Your task to perform on an android device: Go to network settings Image 0: 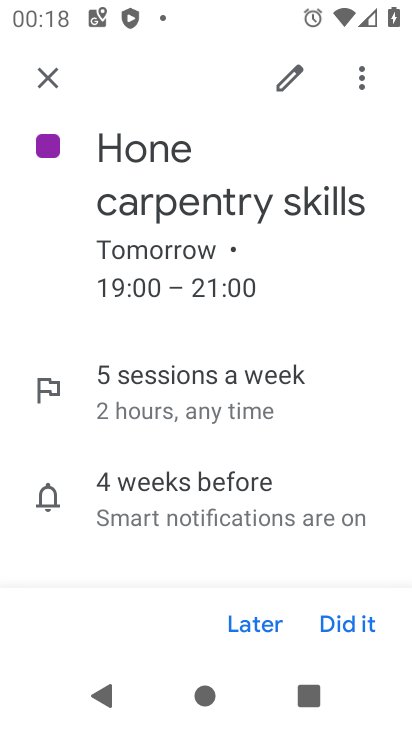
Step 0: press home button
Your task to perform on an android device: Go to network settings Image 1: 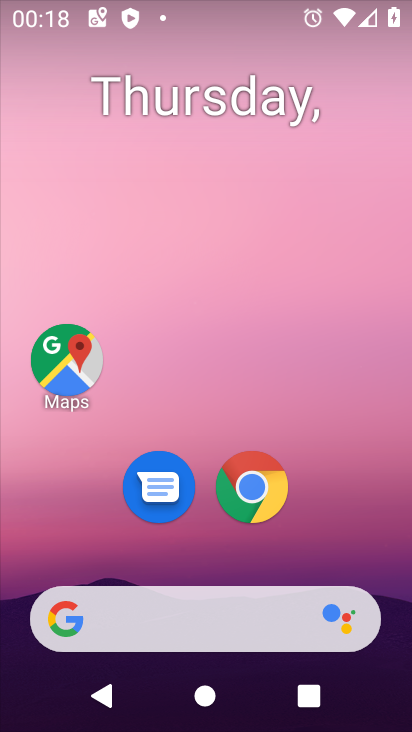
Step 1: drag from (356, 555) to (180, 7)
Your task to perform on an android device: Go to network settings Image 2: 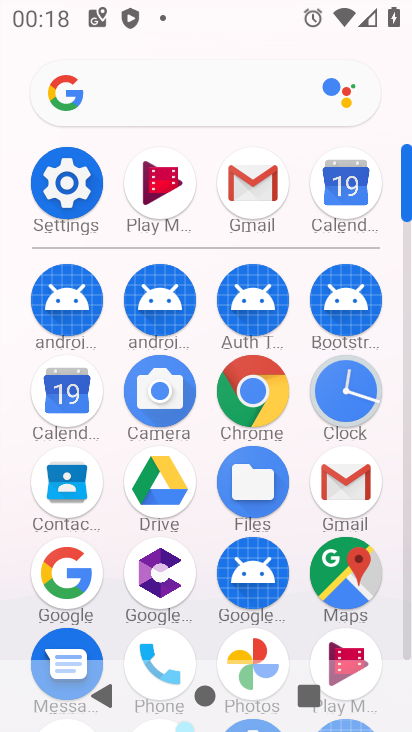
Step 2: click (63, 189)
Your task to perform on an android device: Go to network settings Image 3: 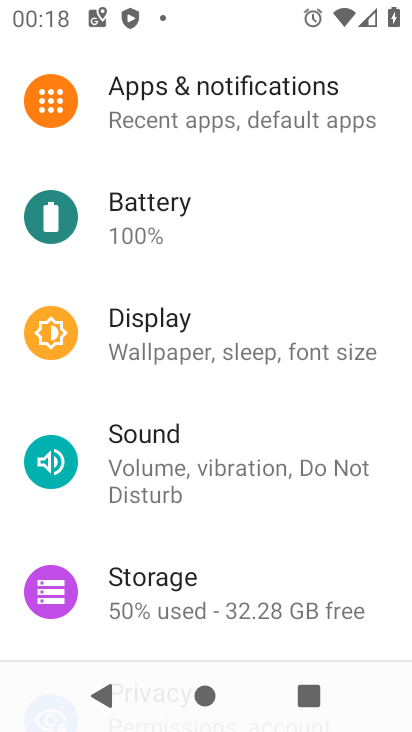
Step 3: drag from (269, 208) to (283, 496)
Your task to perform on an android device: Go to network settings Image 4: 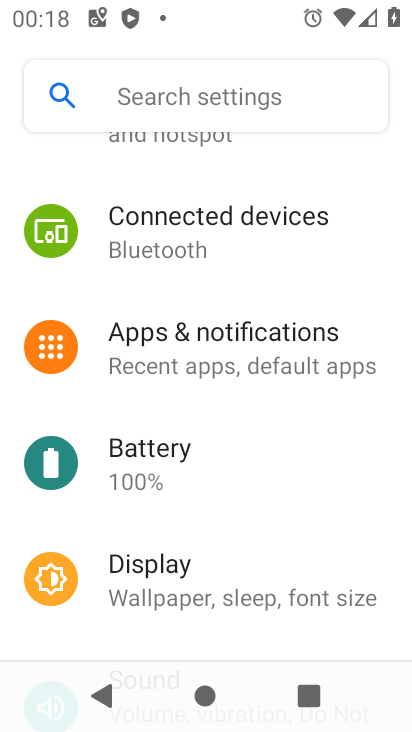
Step 4: drag from (241, 235) to (253, 494)
Your task to perform on an android device: Go to network settings Image 5: 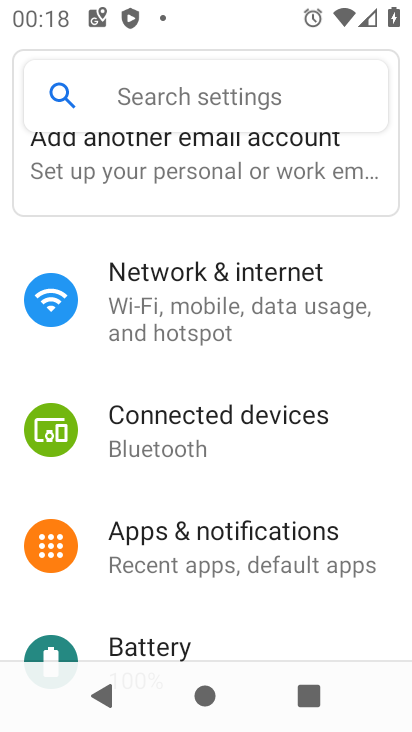
Step 5: click (179, 320)
Your task to perform on an android device: Go to network settings Image 6: 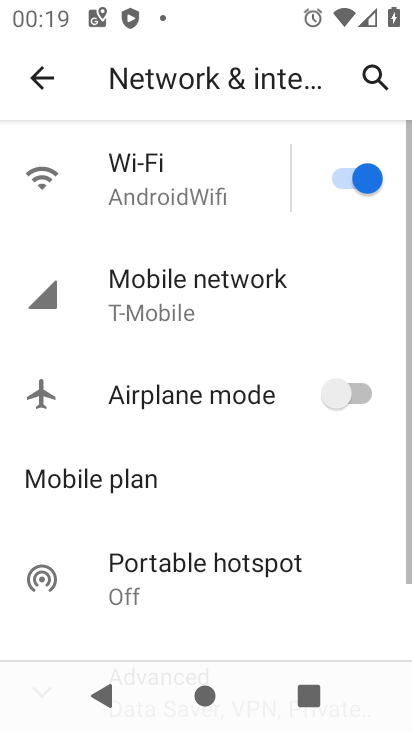
Step 6: click (149, 298)
Your task to perform on an android device: Go to network settings Image 7: 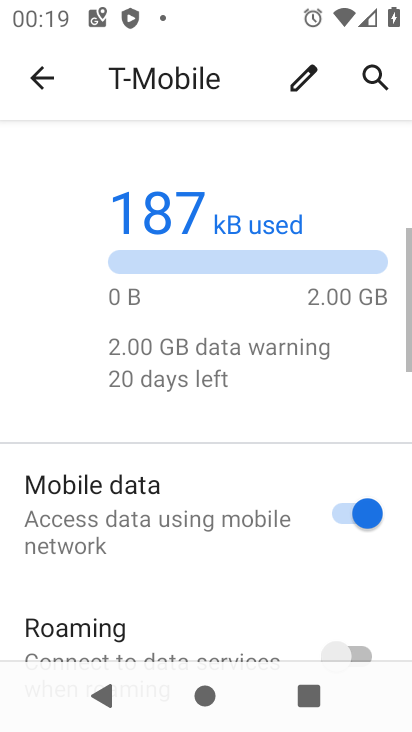
Step 7: drag from (202, 517) to (210, 57)
Your task to perform on an android device: Go to network settings Image 8: 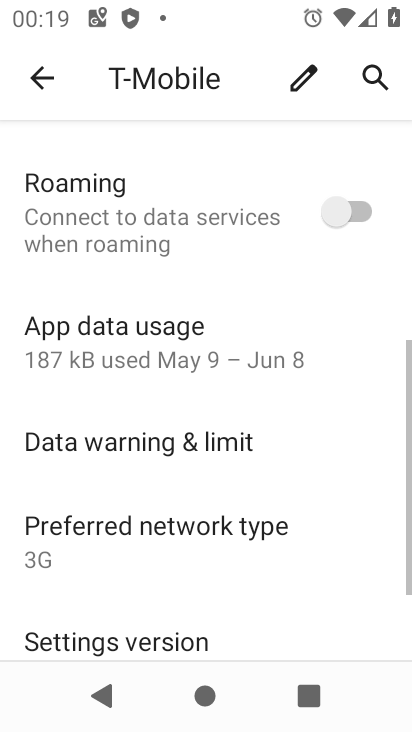
Step 8: drag from (175, 511) to (168, 45)
Your task to perform on an android device: Go to network settings Image 9: 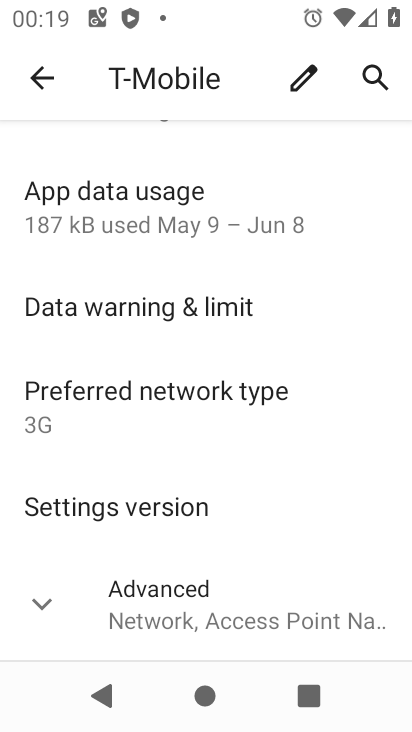
Step 9: click (38, 619)
Your task to perform on an android device: Go to network settings Image 10: 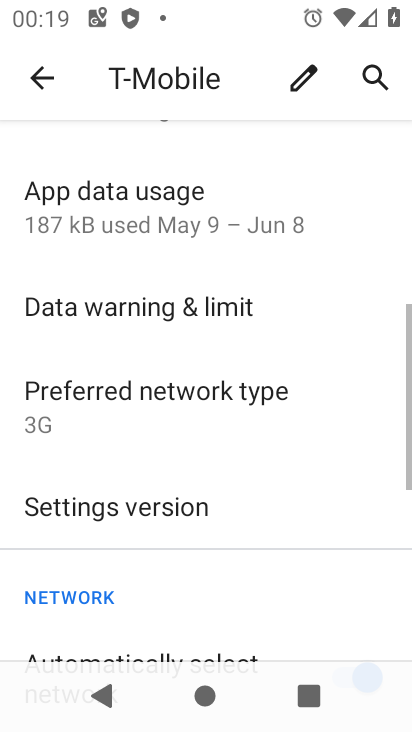
Step 10: task complete